Your task to perform on an android device: add a label to a message in the gmail app Image 0: 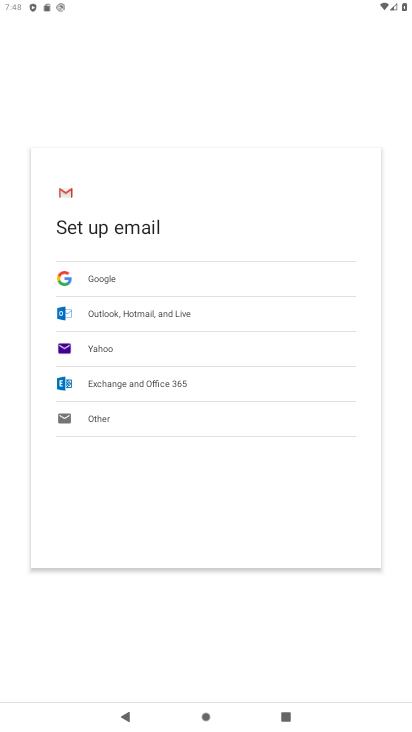
Step 0: press home button
Your task to perform on an android device: add a label to a message in the gmail app Image 1: 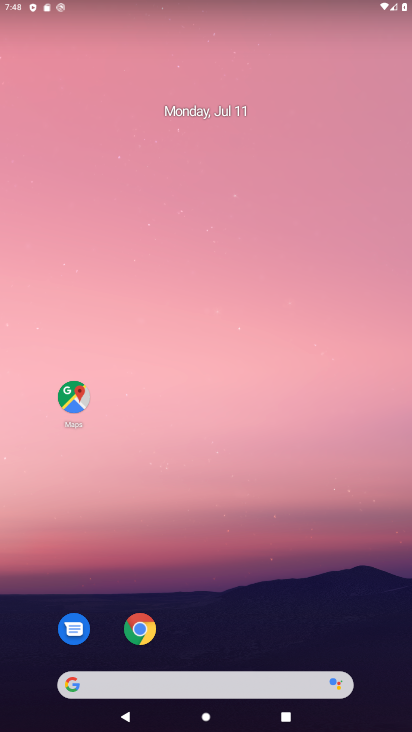
Step 1: drag from (222, 651) to (244, 130)
Your task to perform on an android device: add a label to a message in the gmail app Image 2: 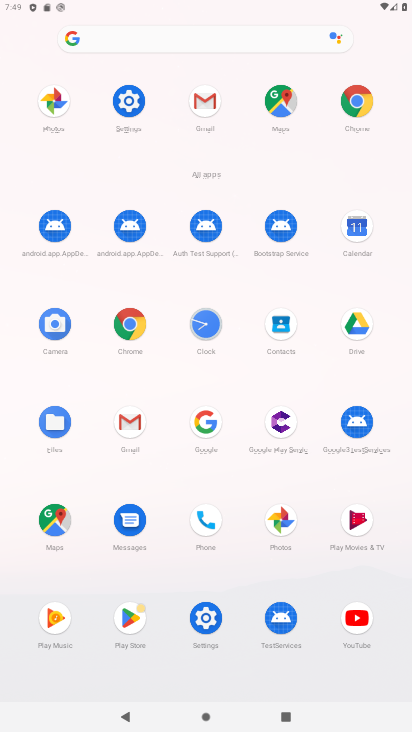
Step 2: click (120, 426)
Your task to perform on an android device: add a label to a message in the gmail app Image 3: 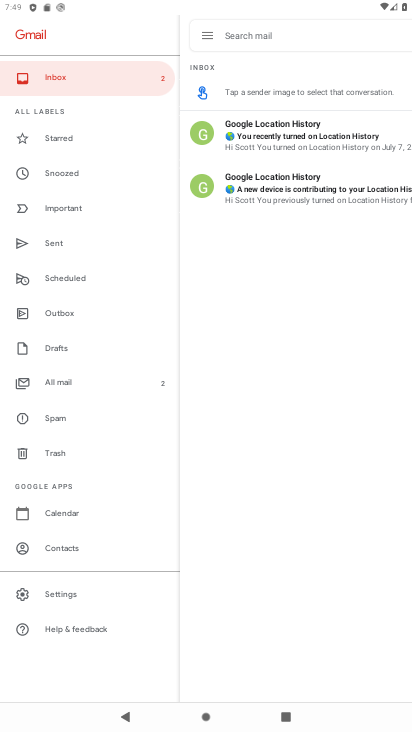
Step 3: click (300, 135)
Your task to perform on an android device: add a label to a message in the gmail app Image 4: 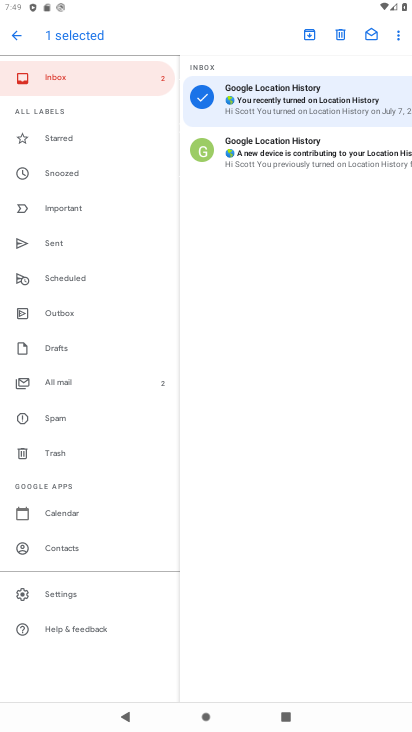
Step 4: click (396, 39)
Your task to perform on an android device: add a label to a message in the gmail app Image 5: 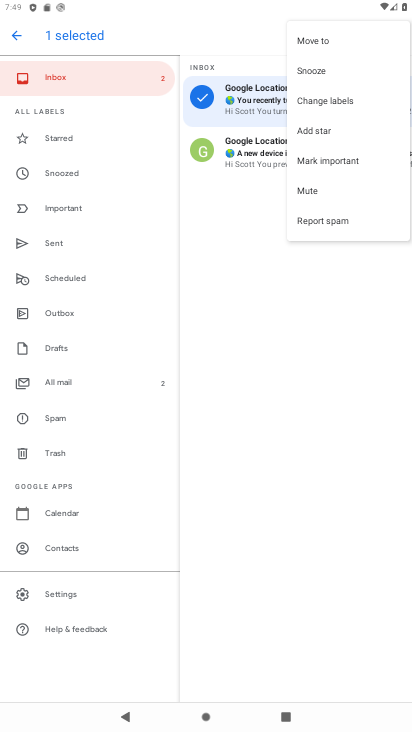
Step 5: click (338, 100)
Your task to perform on an android device: add a label to a message in the gmail app Image 6: 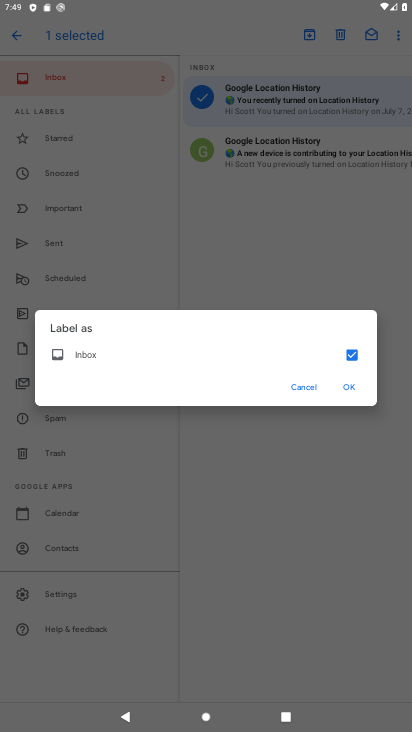
Step 6: click (350, 350)
Your task to perform on an android device: add a label to a message in the gmail app Image 7: 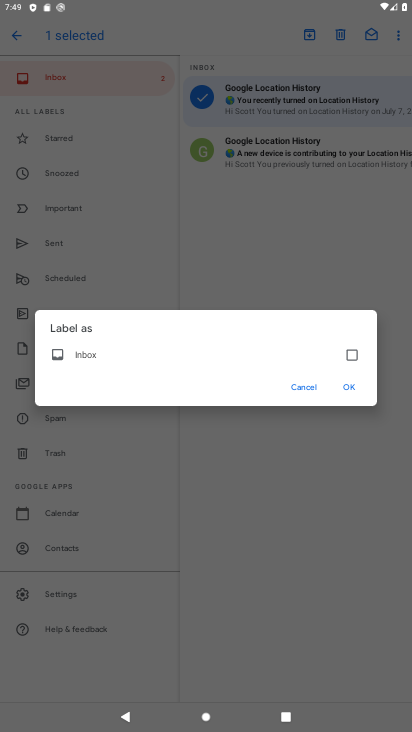
Step 7: click (352, 390)
Your task to perform on an android device: add a label to a message in the gmail app Image 8: 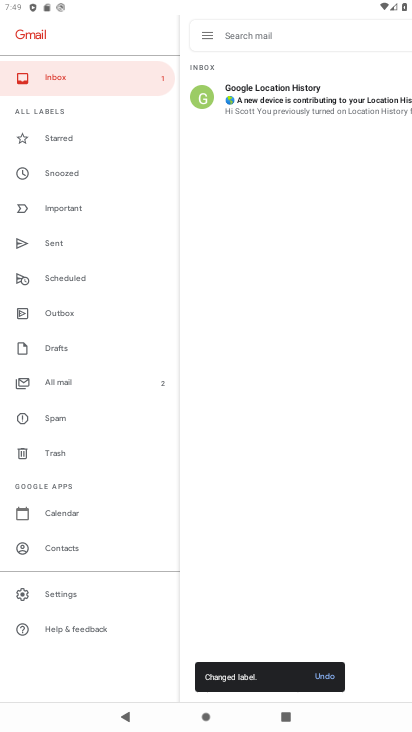
Step 8: task complete